Your task to perform on an android device: change your default location settings in chrome Image 0: 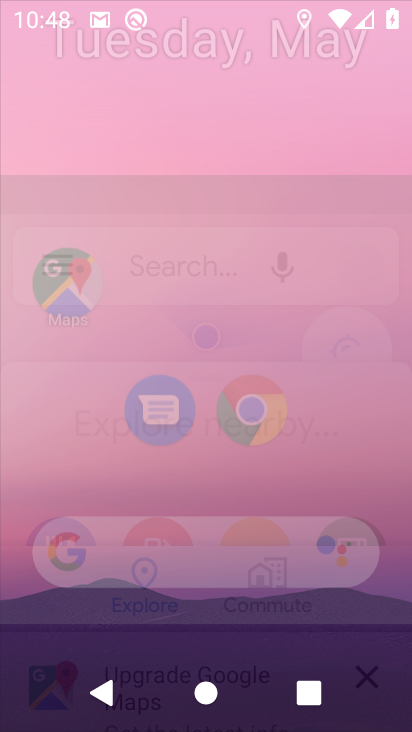
Step 0: click (335, 45)
Your task to perform on an android device: change your default location settings in chrome Image 1: 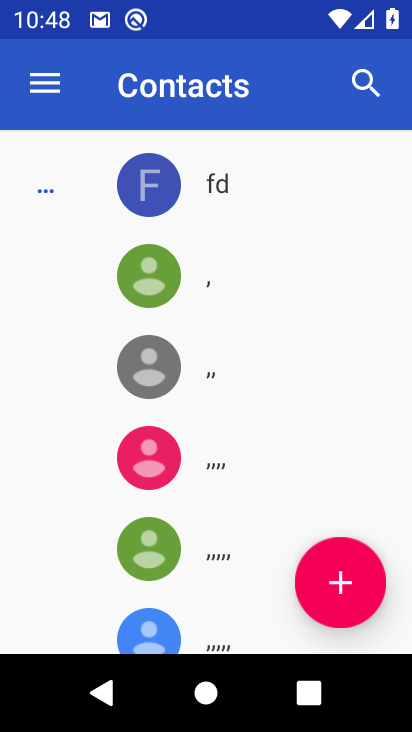
Step 1: drag from (160, 544) to (199, 291)
Your task to perform on an android device: change your default location settings in chrome Image 2: 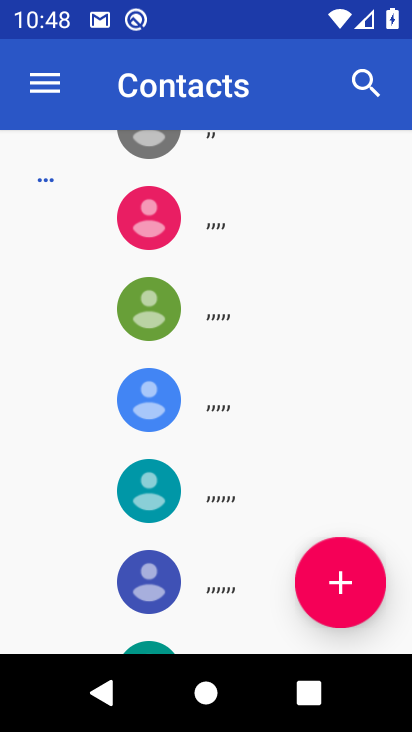
Step 2: drag from (225, 558) to (258, 293)
Your task to perform on an android device: change your default location settings in chrome Image 3: 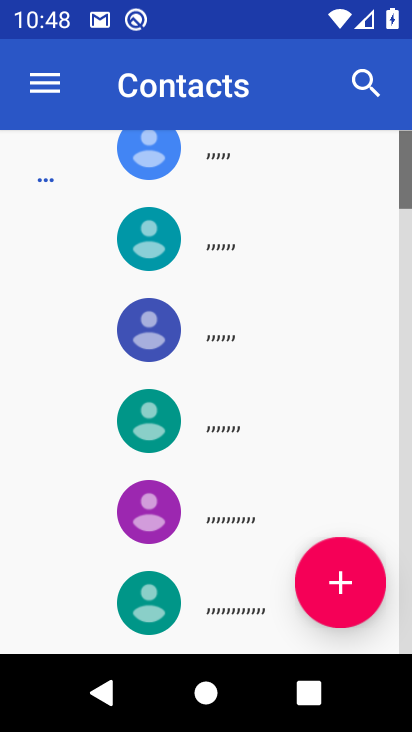
Step 3: drag from (257, 270) to (187, 556)
Your task to perform on an android device: change your default location settings in chrome Image 4: 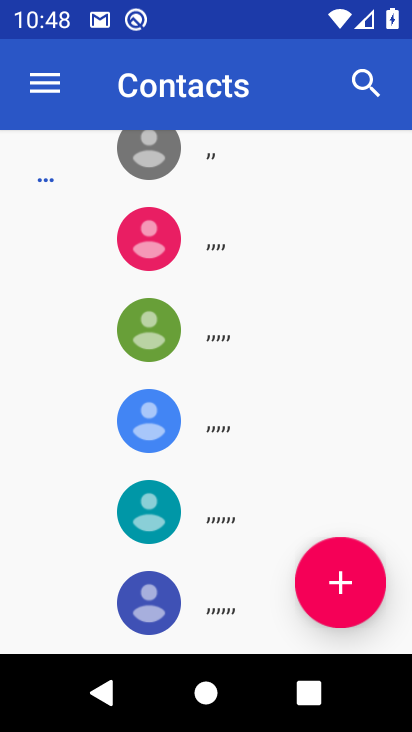
Step 4: drag from (270, 273) to (251, 646)
Your task to perform on an android device: change your default location settings in chrome Image 5: 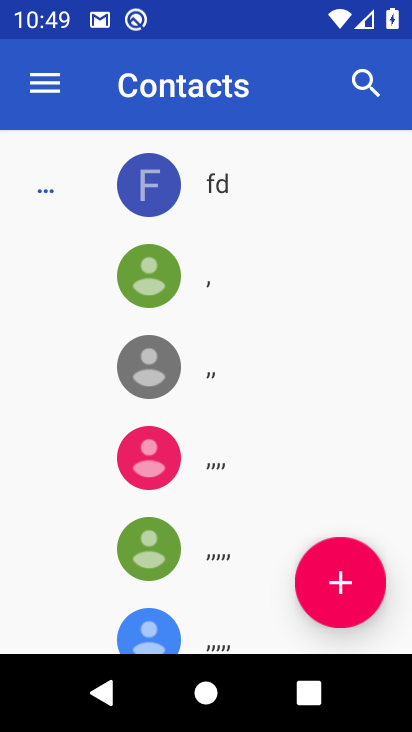
Step 5: drag from (214, 465) to (328, 131)
Your task to perform on an android device: change your default location settings in chrome Image 6: 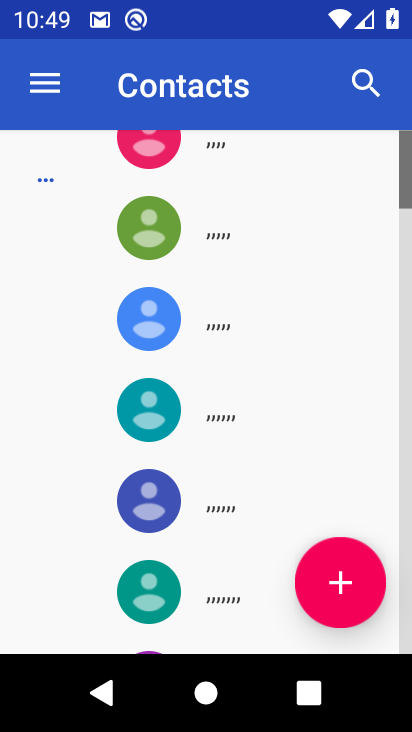
Step 6: drag from (294, 228) to (288, 671)
Your task to perform on an android device: change your default location settings in chrome Image 7: 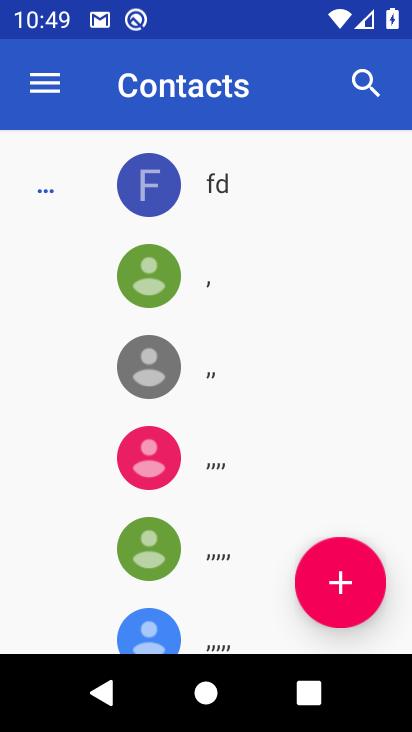
Step 7: press home button
Your task to perform on an android device: change your default location settings in chrome Image 8: 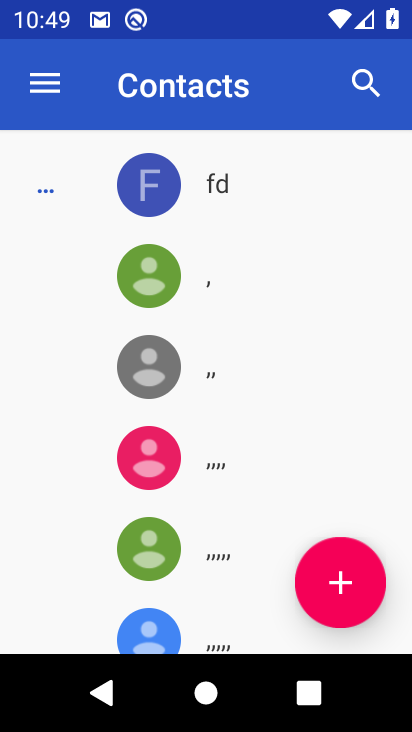
Step 8: drag from (236, 541) to (291, 108)
Your task to perform on an android device: change your default location settings in chrome Image 9: 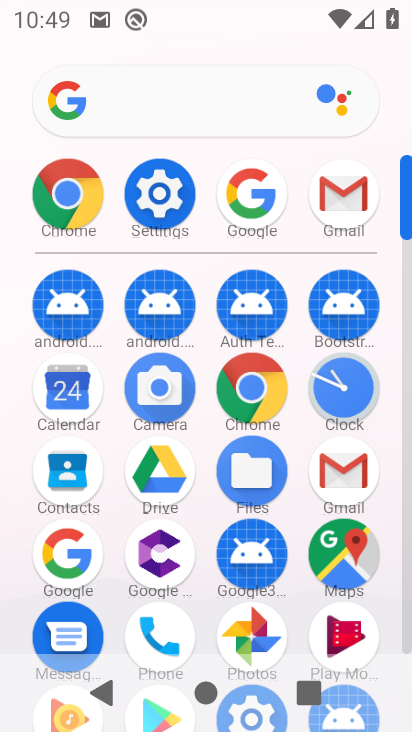
Step 9: click (80, 195)
Your task to perform on an android device: change your default location settings in chrome Image 10: 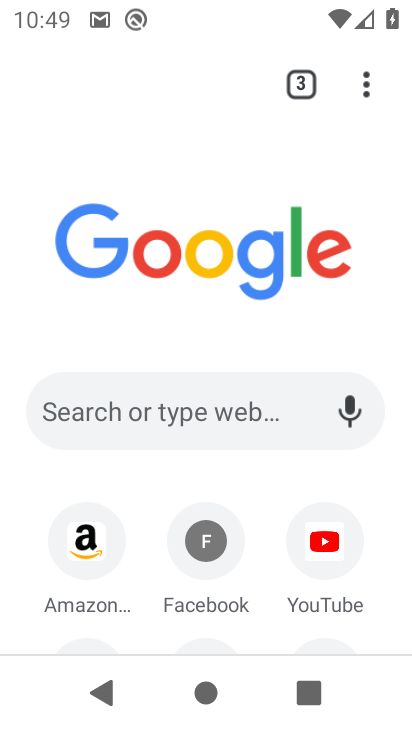
Step 10: drag from (247, 513) to (306, 213)
Your task to perform on an android device: change your default location settings in chrome Image 11: 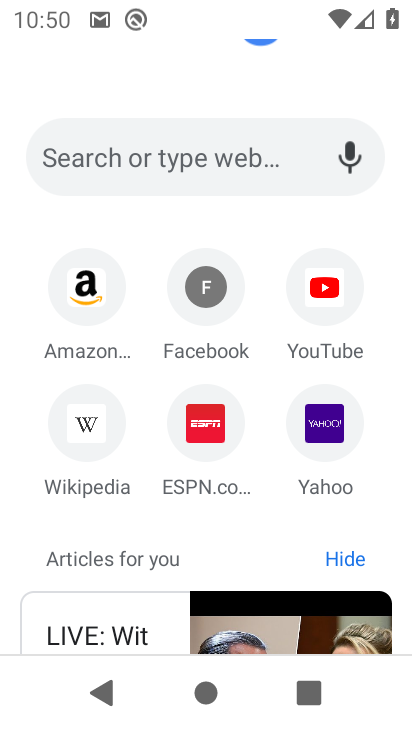
Step 11: drag from (276, 560) to (278, 197)
Your task to perform on an android device: change your default location settings in chrome Image 12: 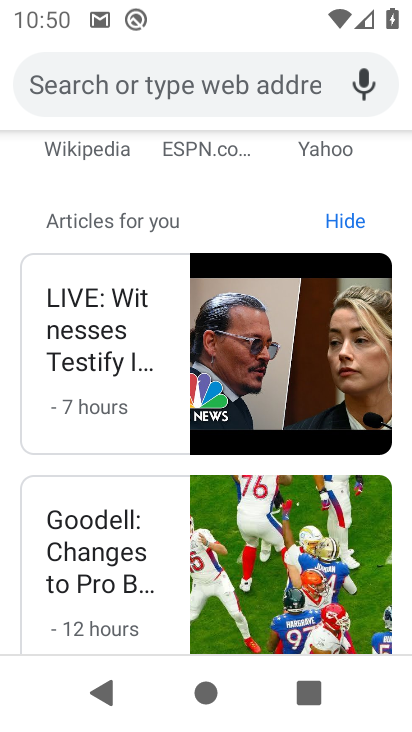
Step 12: drag from (328, 730) to (301, 443)
Your task to perform on an android device: change your default location settings in chrome Image 13: 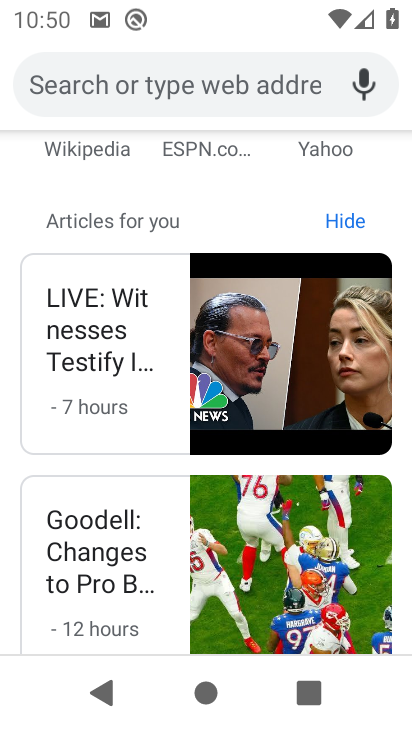
Step 13: drag from (268, 189) to (308, 539)
Your task to perform on an android device: change your default location settings in chrome Image 14: 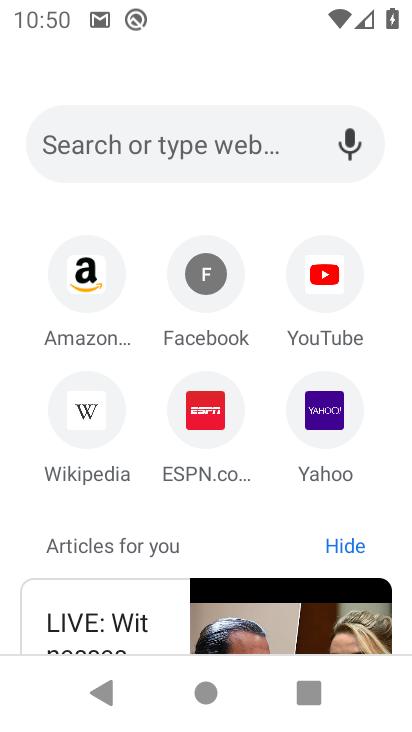
Step 14: drag from (266, 218) to (244, 543)
Your task to perform on an android device: change your default location settings in chrome Image 15: 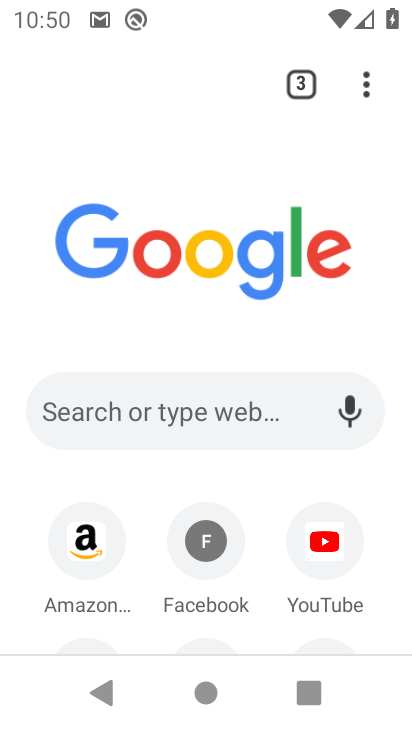
Step 15: click (353, 93)
Your task to perform on an android device: change your default location settings in chrome Image 16: 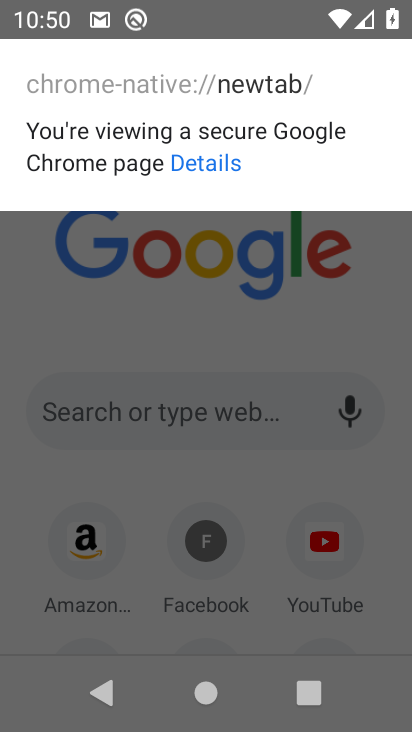
Step 16: click (204, 151)
Your task to perform on an android device: change your default location settings in chrome Image 17: 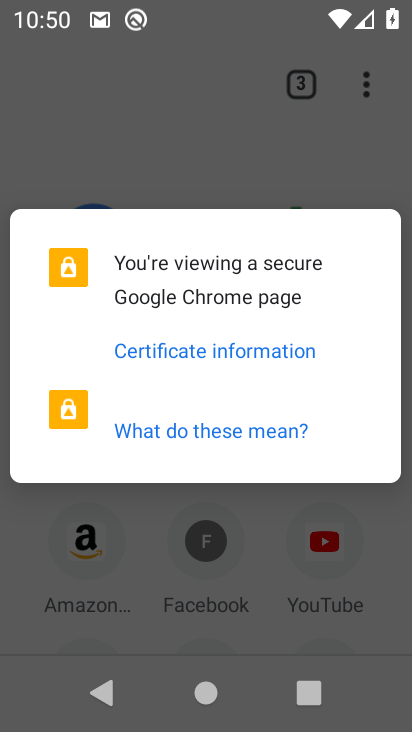
Step 17: click (356, 118)
Your task to perform on an android device: change your default location settings in chrome Image 18: 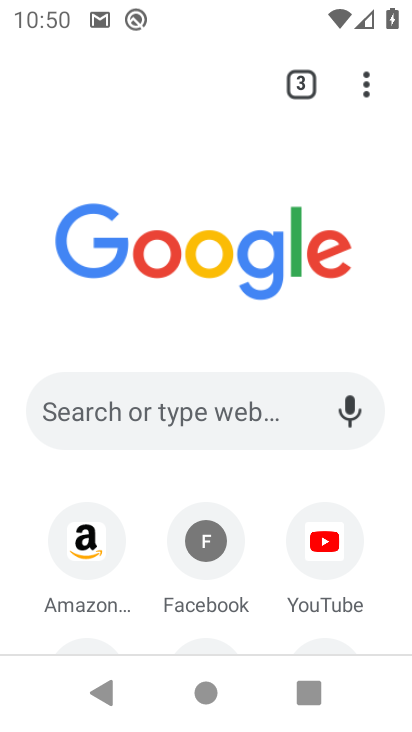
Step 18: click (370, 98)
Your task to perform on an android device: change your default location settings in chrome Image 19: 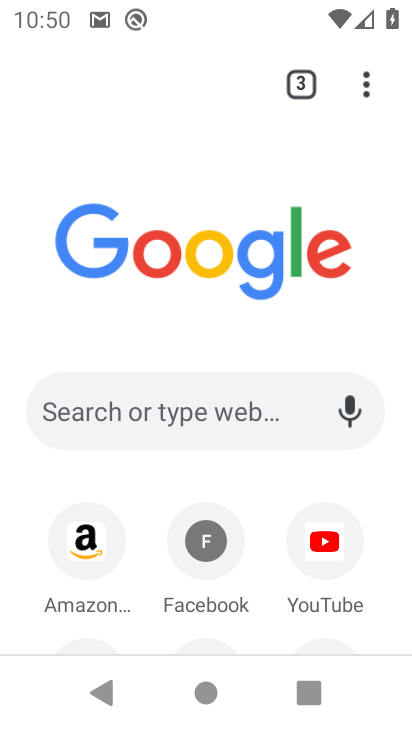
Step 19: click (372, 94)
Your task to perform on an android device: change your default location settings in chrome Image 20: 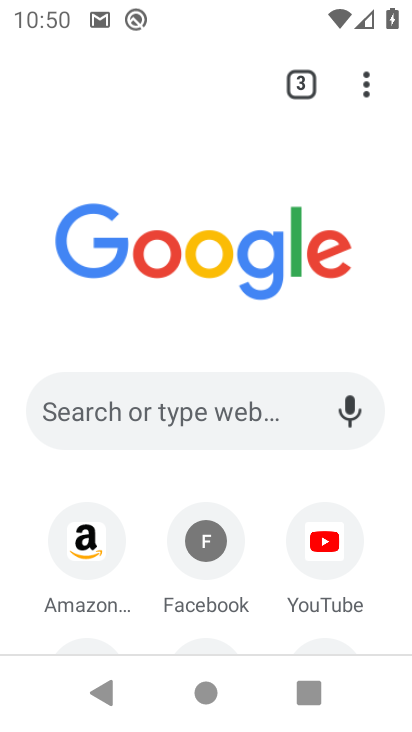
Step 20: click (362, 81)
Your task to perform on an android device: change your default location settings in chrome Image 21: 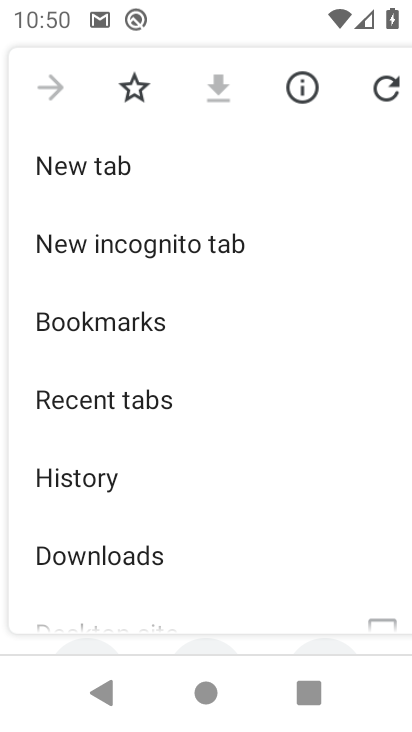
Step 21: drag from (124, 566) to (172, 155)
Your task to perform on an android device: change your default location settings in chrome Image 22: 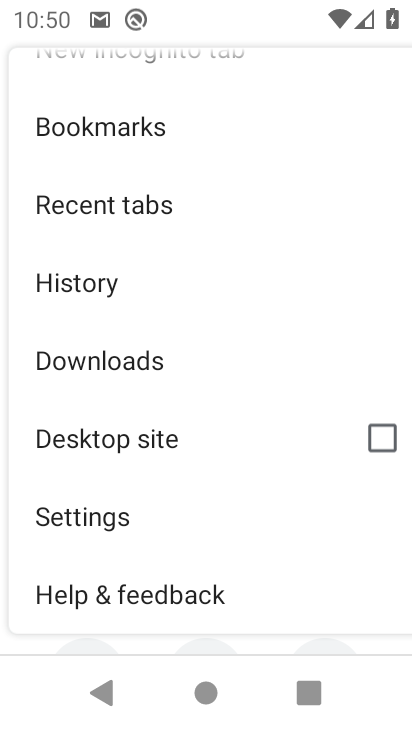
Step 22: click (108, 521)
Your task to perform on an android device: change your default location settings in chrome Image 23: 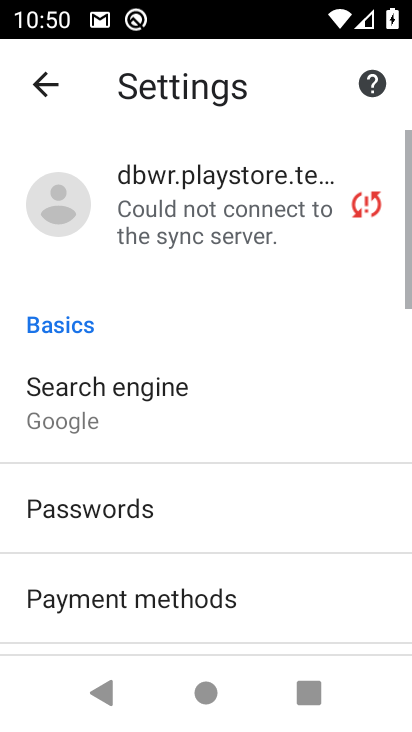
Step 23: drag from (131, 523) to (14, 112)
Your task to perform on an android device: change your default location settings in chrome Image 24: 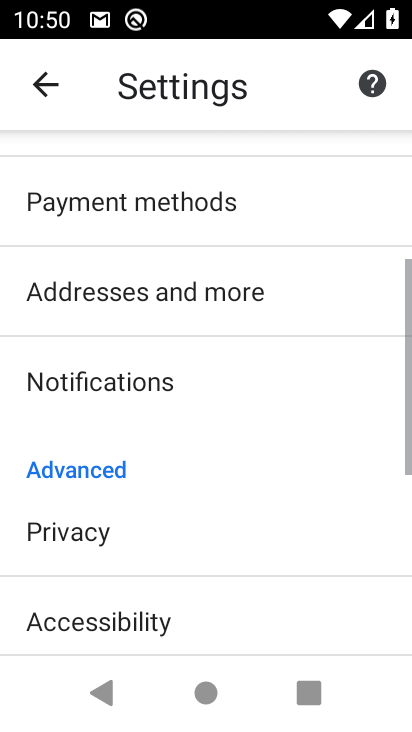
Step 24: click (156, 611)
Your task to perform on an android device: change your default location settings in chrome Image 25: 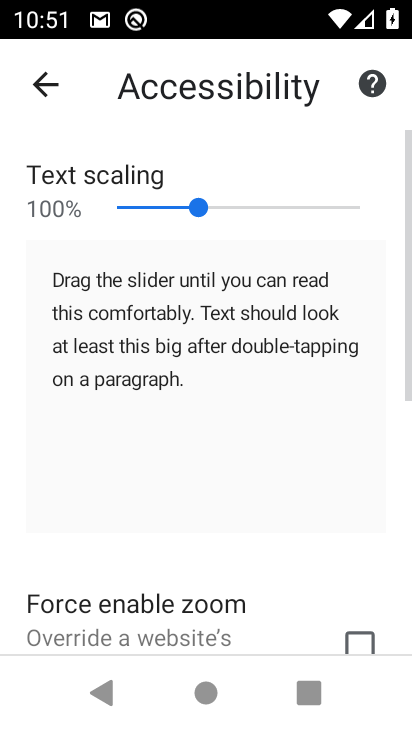
Step 25: drag from (217, 413) to (263, 6)
Your task to perform on an android device: change your default location settings in chrome Image 26: 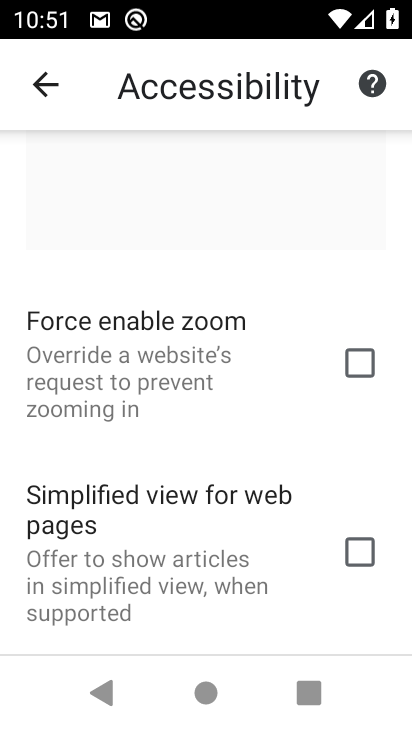
Step 26: click (60, 75)
Your task to perform on an android device: change your default location settings in chrome Image 27: 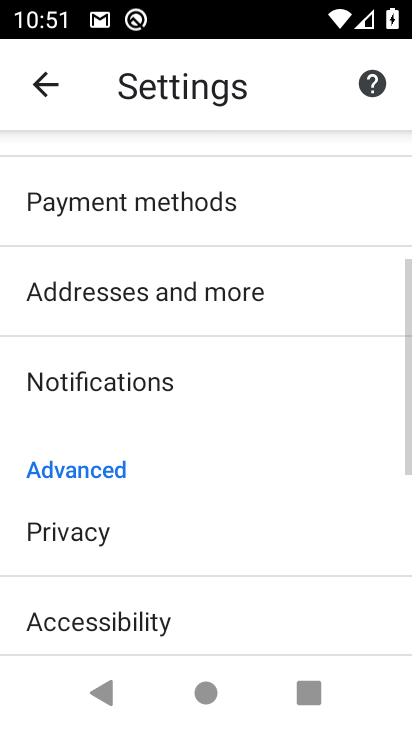
Step 27: drag from (149, 635) to (255, 196)
Your task to perform on an android device: change your default location settings in chrome Image 28: 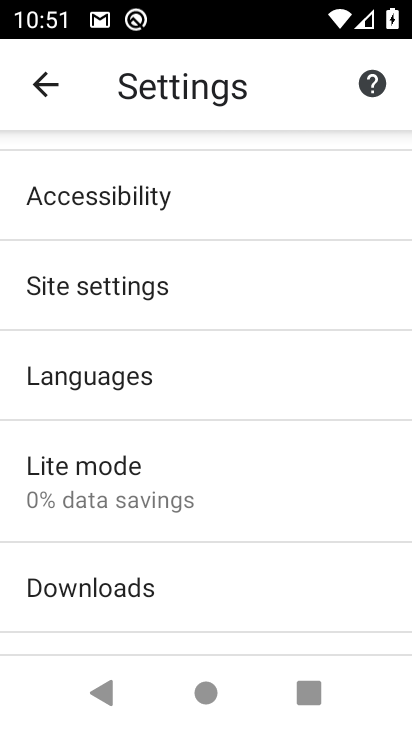
Step 28: drag from (118, 373) to (231, 562)
Your task to perform on an android device: change your default location settings in chrome Image 29: 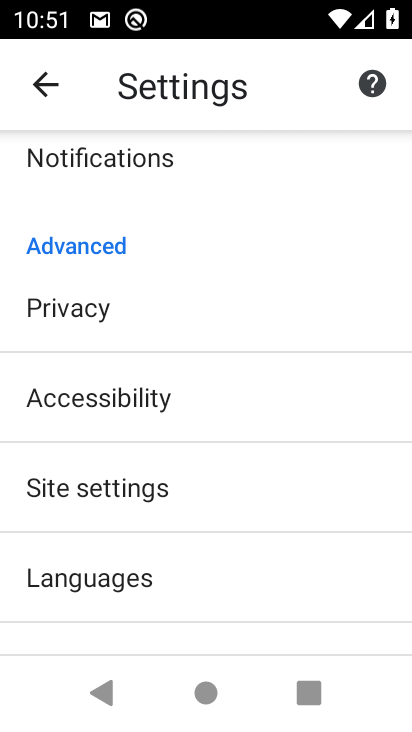
Step 29: click (248, 503)
Your task to perform on an android device: change your default location settings in chrome Image 30: 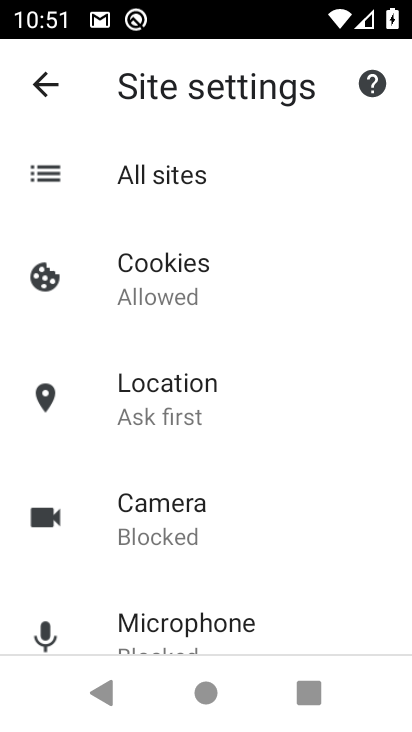
Step 30: drag from (244, 569) to (334, 63)
Your task to perform on an android device: change your default location settings in chrome Image 31: 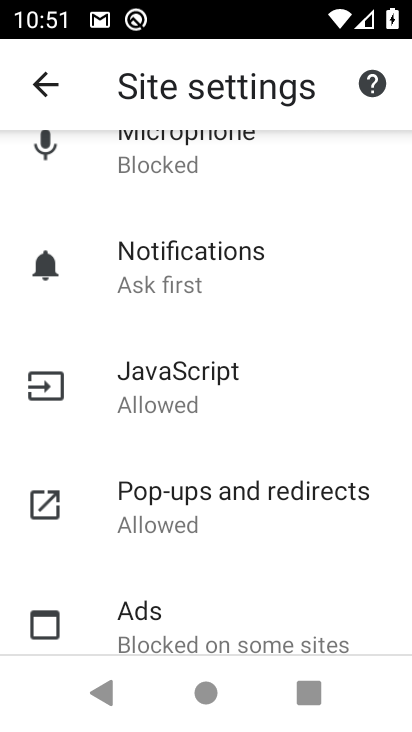
Step 31: drag from (228, 195) to (322, 565)
Your task to perform on an android device: change your default location settings in chrome Image 32: 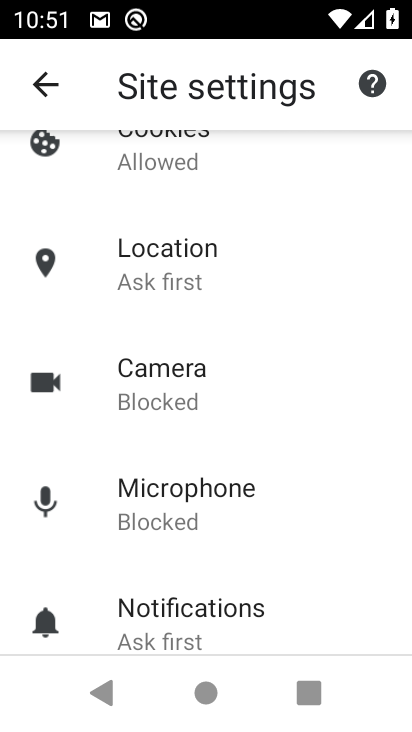
Step 32: drag from (257, 522) to (305, 151)
Your task to perform on an android device: change your default location settings in chrome Image 33: 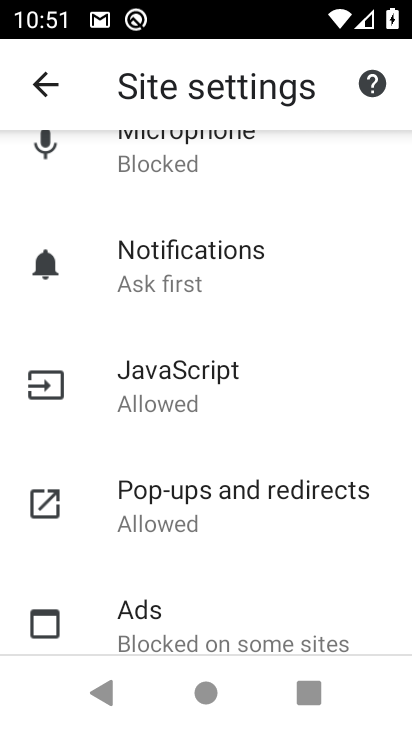
Step 33: drag from (226, 247) to (320, 718)
Your task to perform on an android device: change your default location settings in chrome Image 34: 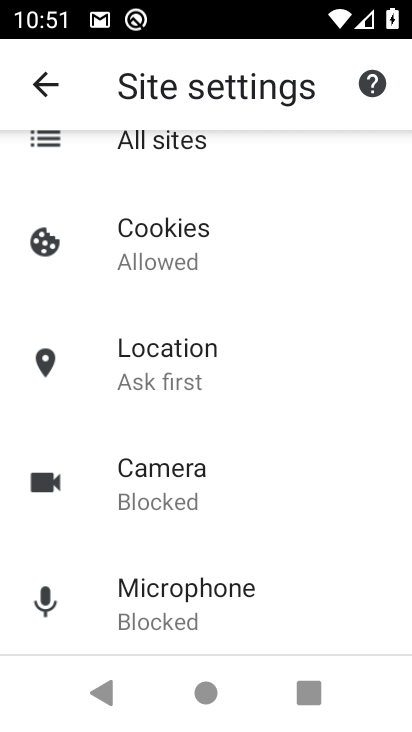
Step 34: click (187, 359)
Your task to perform on an android device: change your default location settings in chrome Image 35: 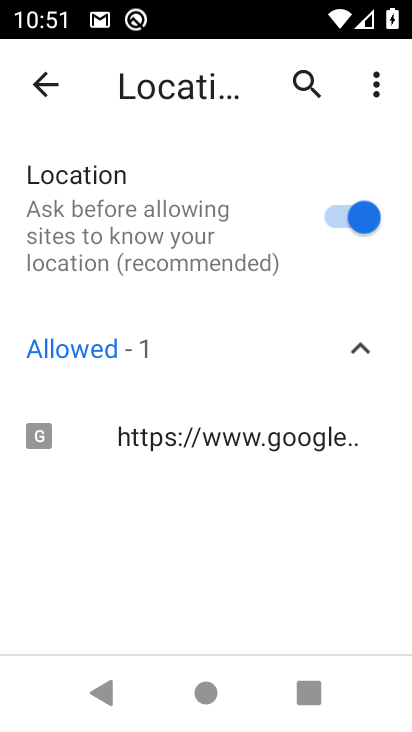
Step 35: click (353, 200)
Your task to perform on an android device: change your default location settings in chrome Image 36: 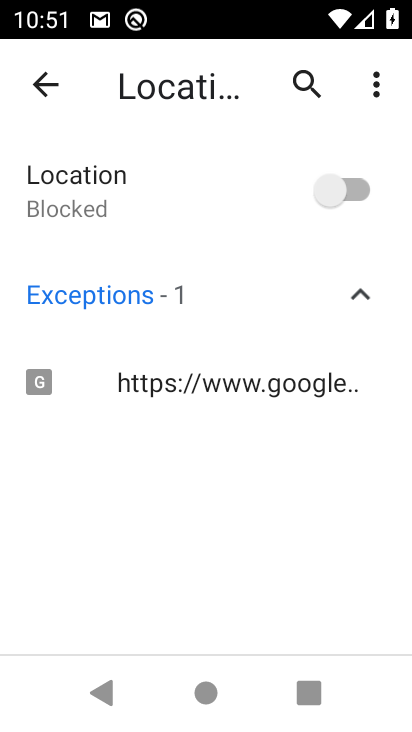
Step 36: task complete